Your task to perform on an android device: Open Google Image 0: 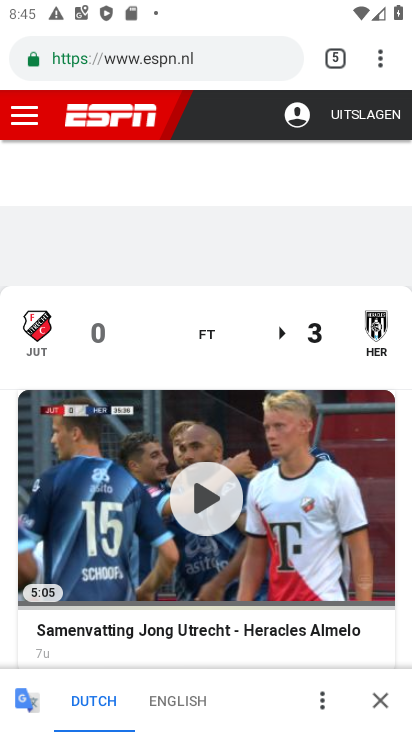
Step 0: press home button
Your task to perform on an android device: Open Google Image 1: 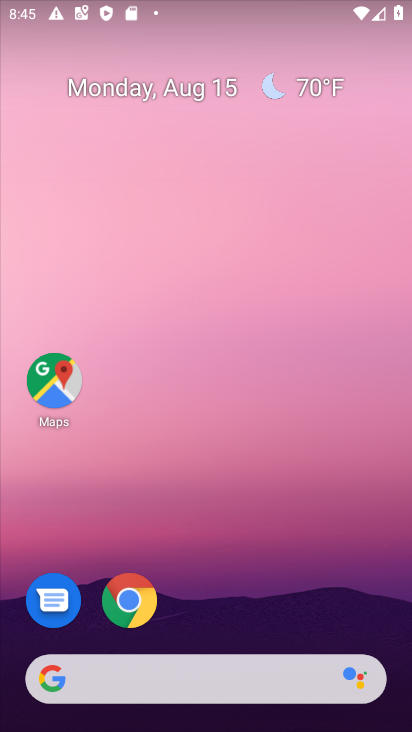
Step 1: drag from (208, 629) to (210, 115)
Your task to perform on an android device: Open Google Image 2: 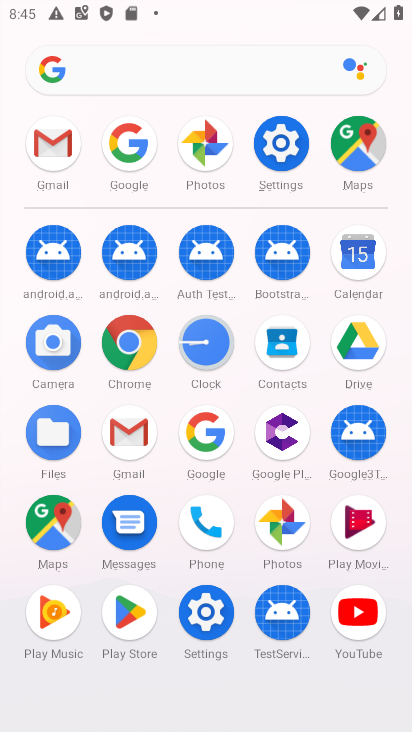
Step 2: click (209, 433)
Your task to perform on an android device: Open Google Image 3: 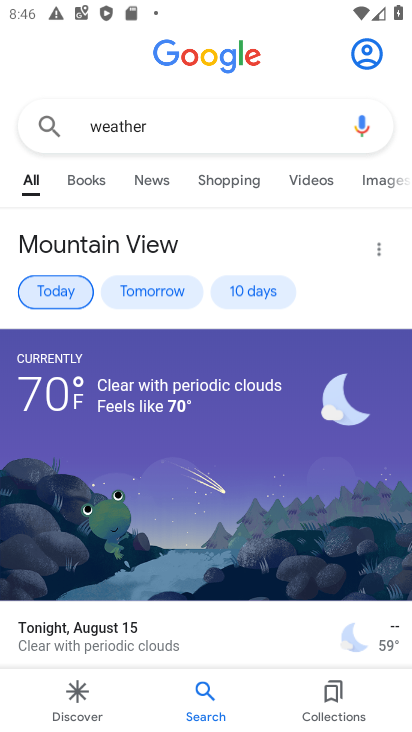
Step 3: task complete